Your task to perform on an android device: Go to wifi settings Image 0: 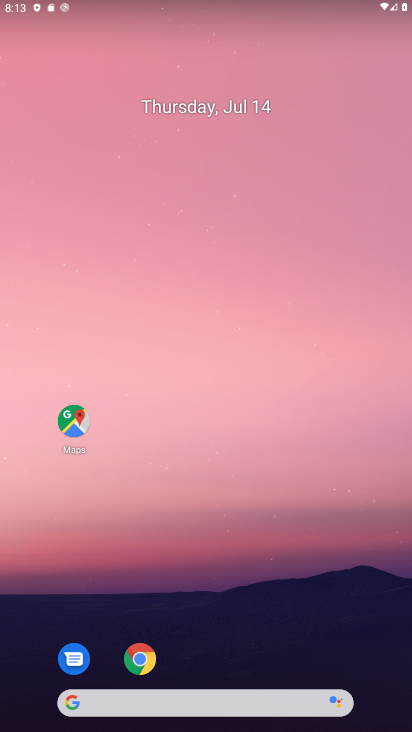
Step 0: drag from (197, 672) to (130, 228)
Your task to perform on an android device: Go to wifi settings Image 1: 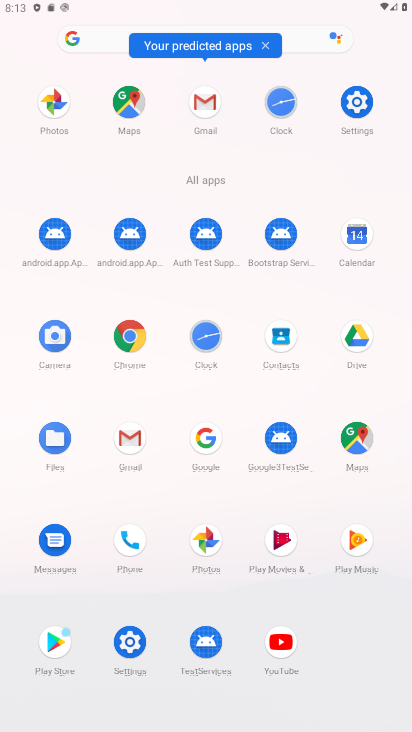
Step 1: click (340, 98)
Your task to perform on an android device: Go to wifi settings Image 2: 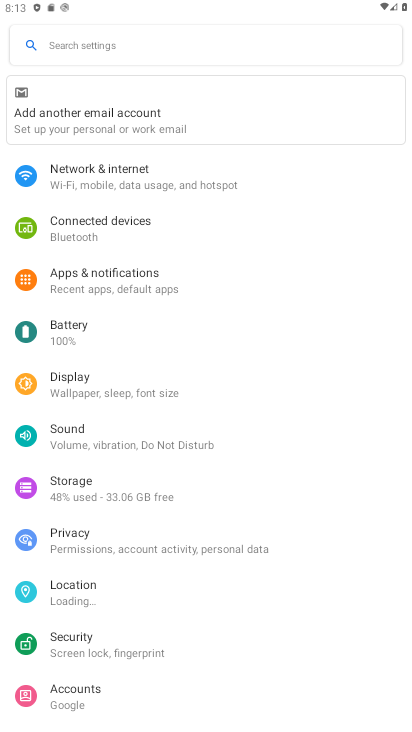
Step 2: click (113, 189)
Your task to perform on an android device: Go to wifi settings Image 3: 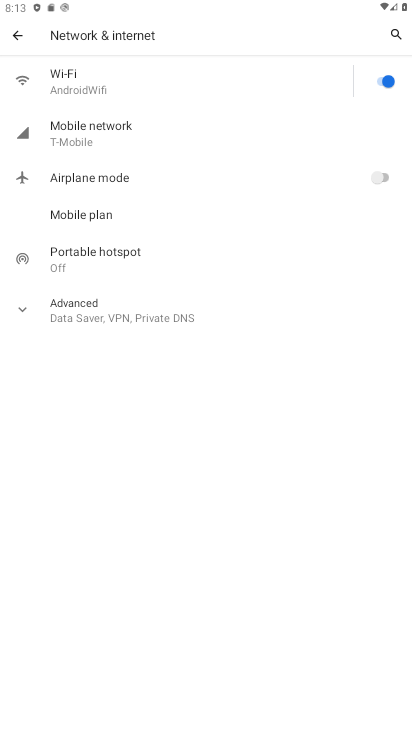
Step 3: click (95, 90)
Your task to perform on an android device: Go to wifi settings Image 4: 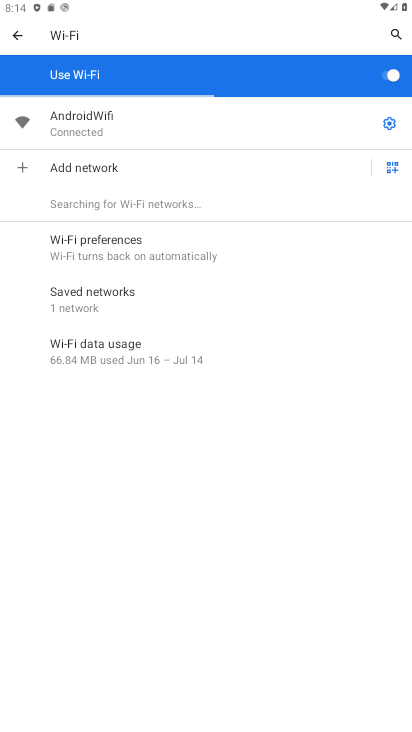
Step 4: task complete